Your task to perform on an android device: install app "Expedia: Hotels, Flights & Car" Image 0: 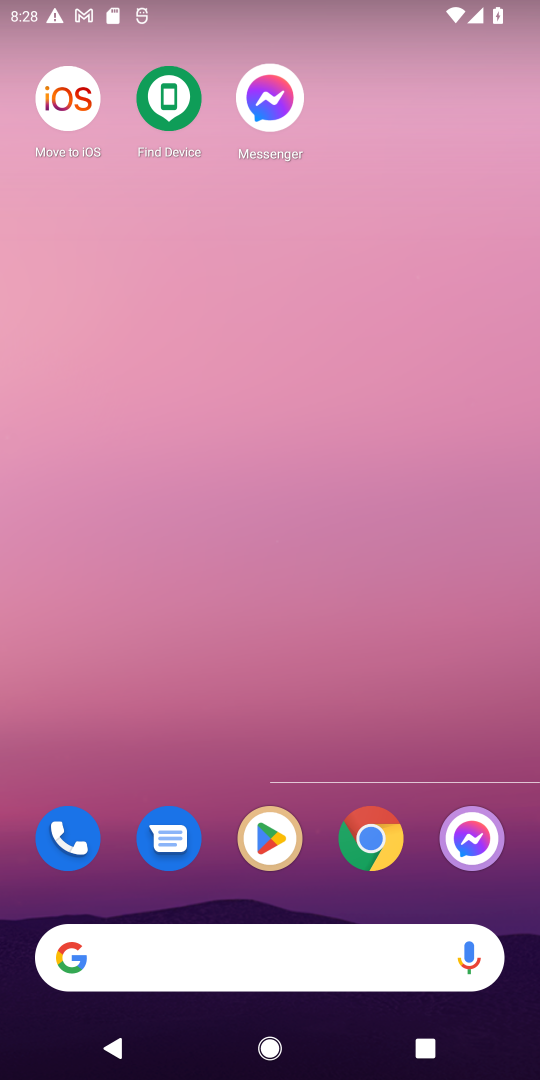
Step 0: press home button
Your task to perform on an android device: install app "Expedia: Hotels, Flights & Car" Image 1: 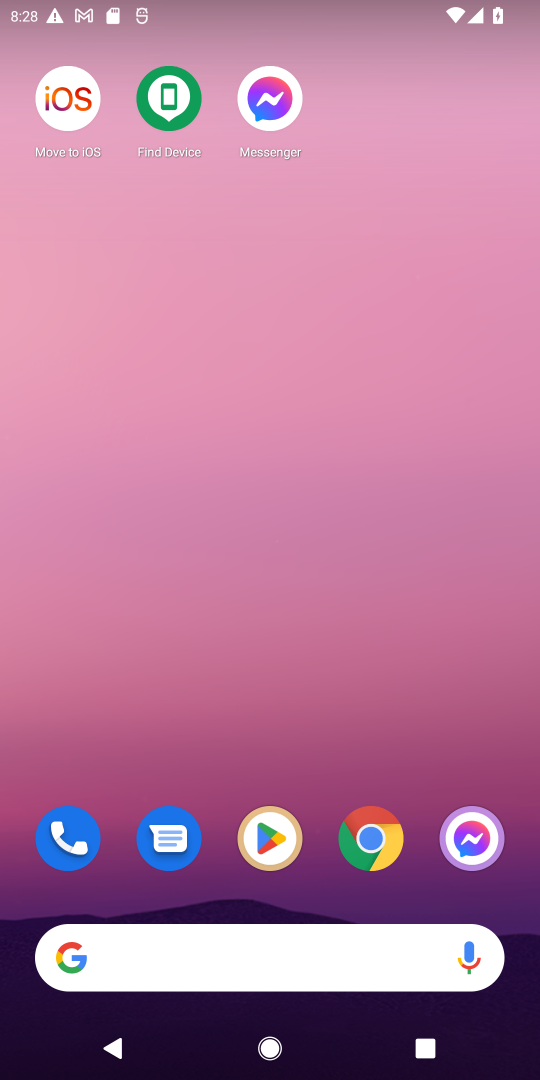
Step 1: click (262, 828)
Your task to perform on an android device: install app "Expedia: Hotels, Flights & Car" Image 2: 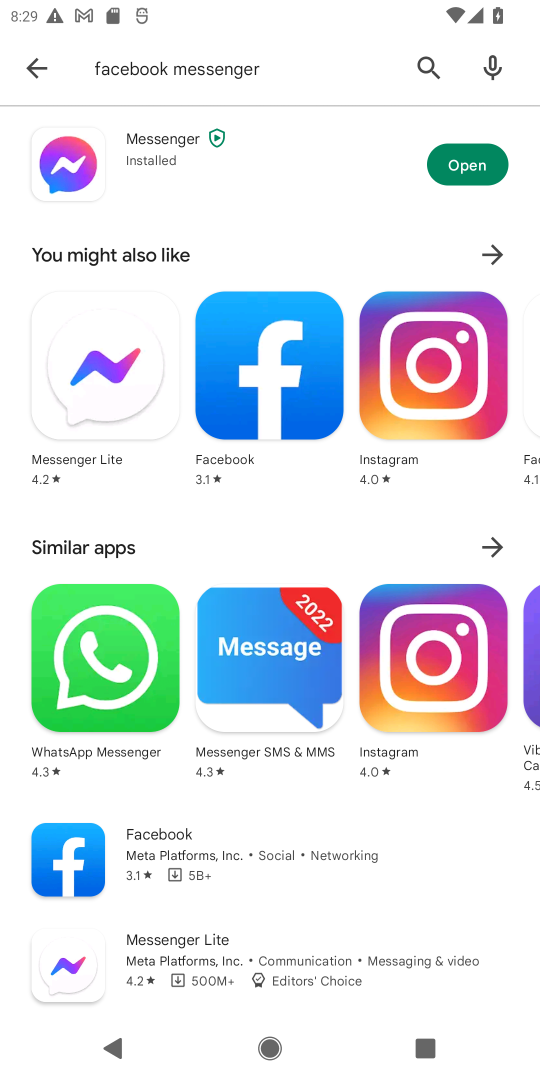
Step 2: click (430, 66)
Your task to perform on an android device: install app "Expedia: Hotels, Flights & Car" Image 3: 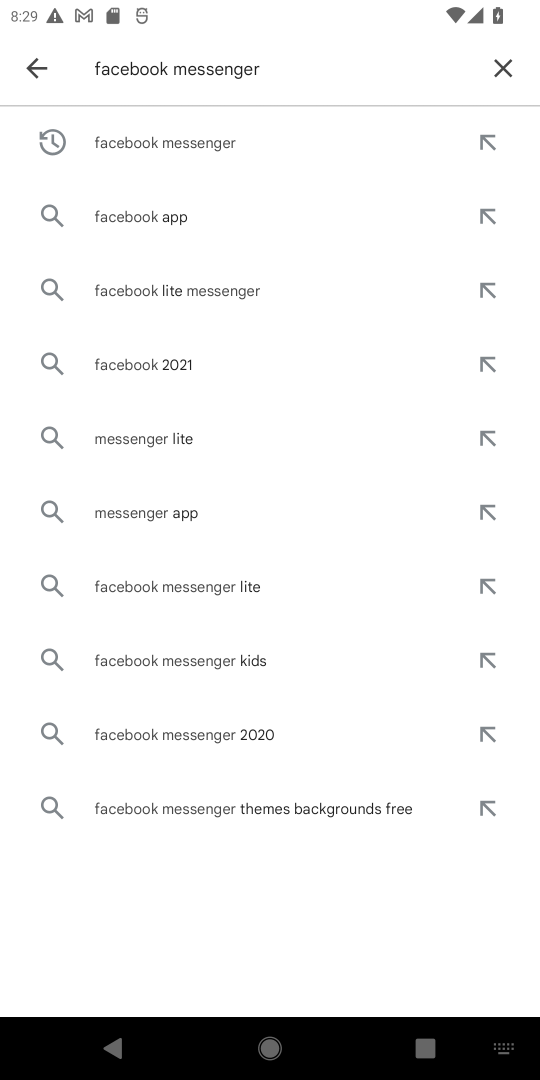
Step 3: type "Expedia: Hotels, Flights & Car"
Your task to perform on an android device: install app "Expedia: Hotels, Flights & Car" Image 4: 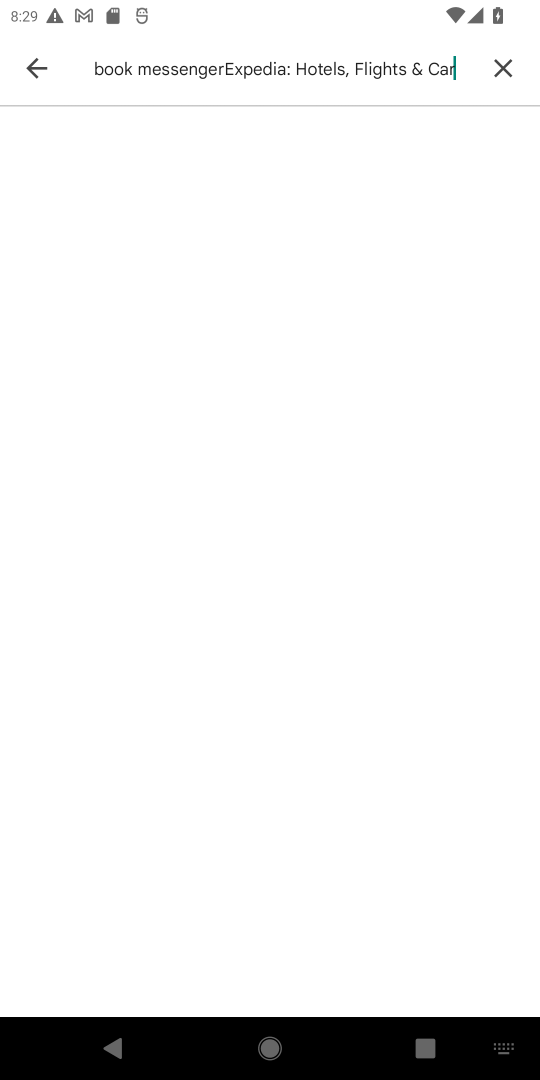
Step 4: click (492, 60)
Your task to perform on an android device: install app "Expedia: Hotels, Flights & Car" Image 5: 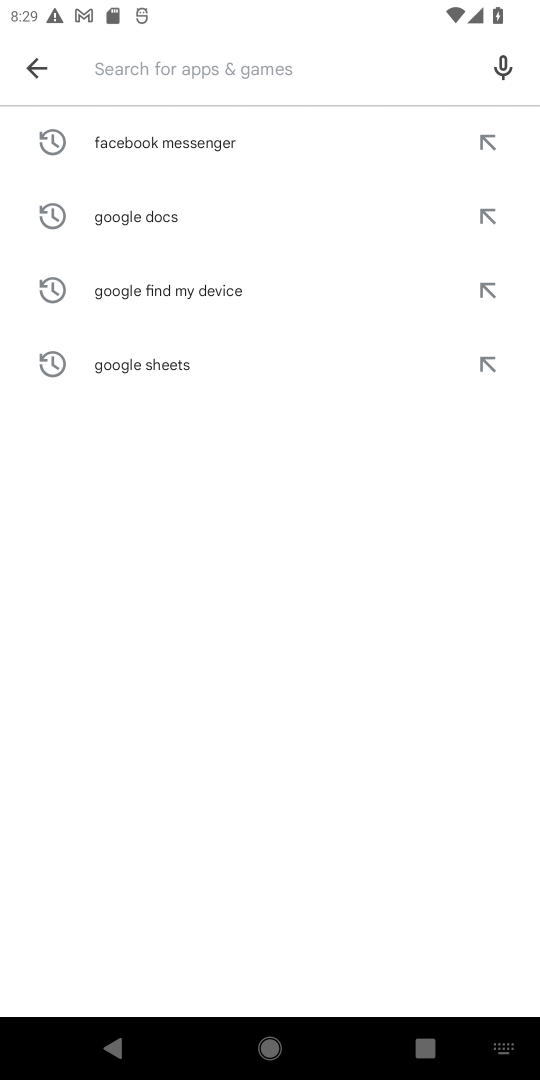
Step 5: type "Expedia: Hotels, Flights & Car"
Your task to perform on an android device: install app "Expedia: Hotels, Flights & Car" Image 6: 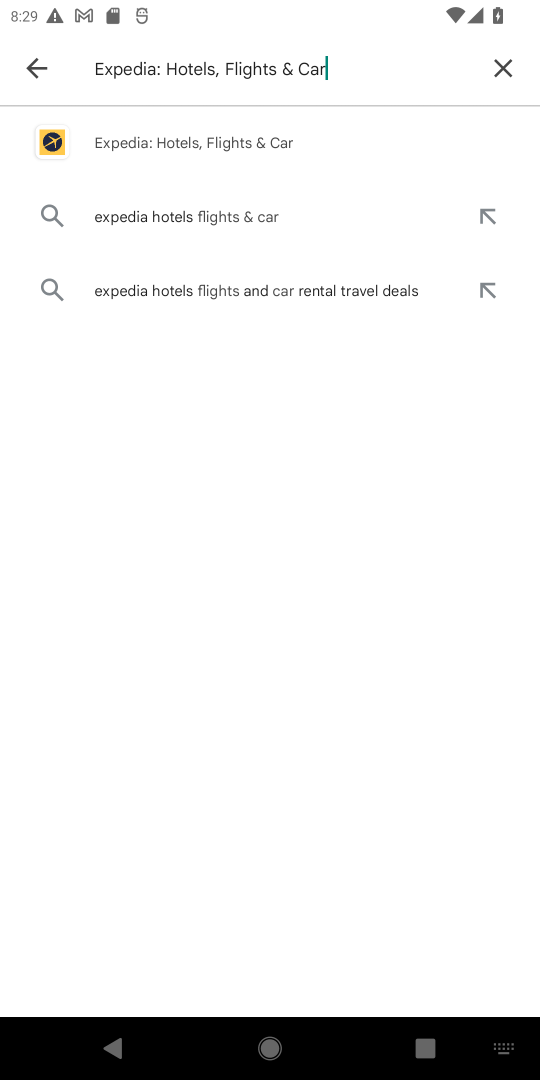
Step 6: click (238, 135)
Your task to perform on an android device: install app "Expedia: Hotels, Flights & Car" Image 7: 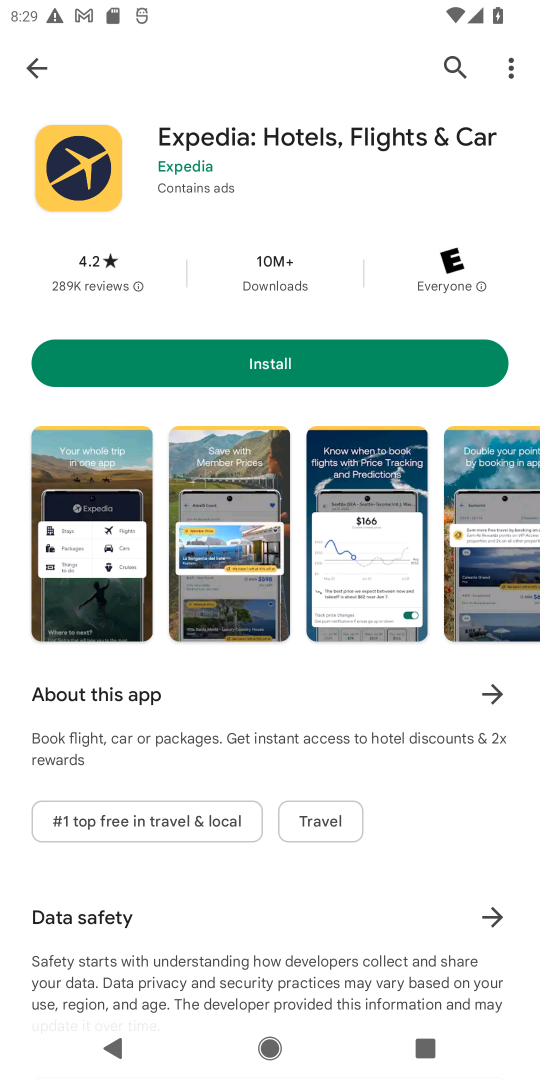
Step 7: click (264, 359)
Your task to perform on an android device: install app "Expedia: Hotels, Flights & Car" Image 8: 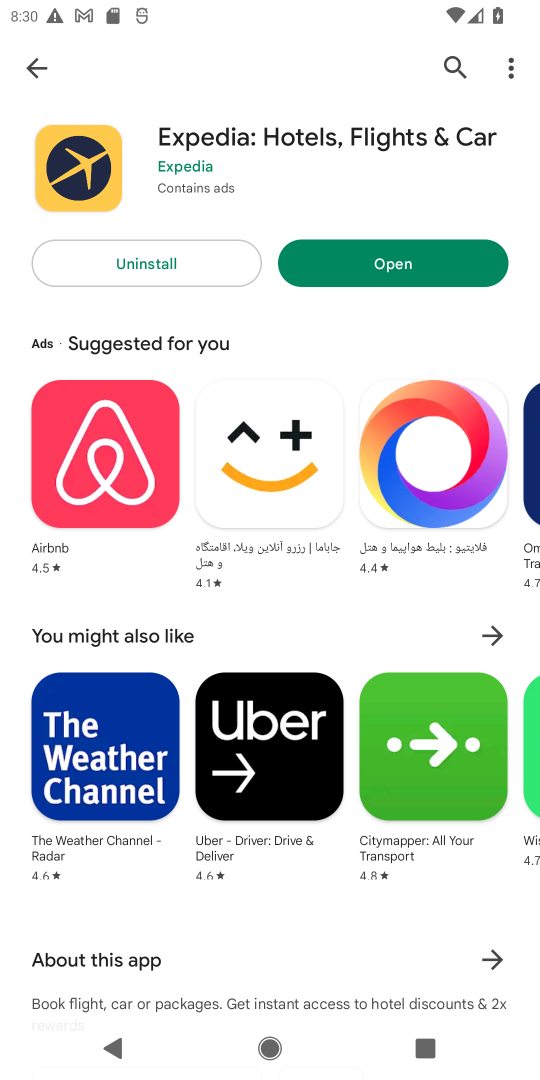
Step 8: click (349, 260)
Your task to perform on an android device: install app "Expedia: Hotels, Flights & Car" Image 9: 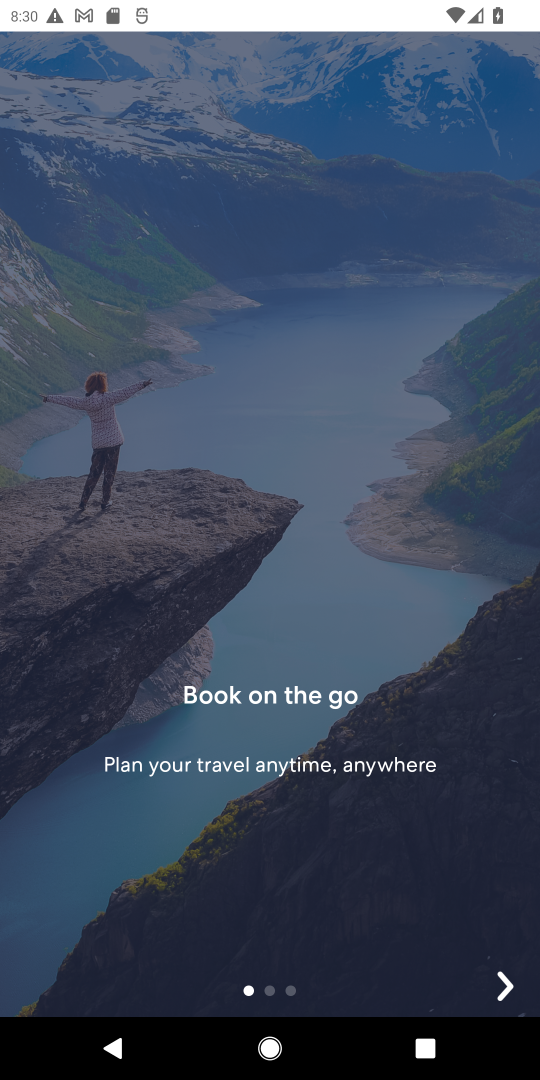
Step 9: click (504, 980)
Your task to perform on an android device: install app "Expedia: Hotels, Flights & Car" Image 10: 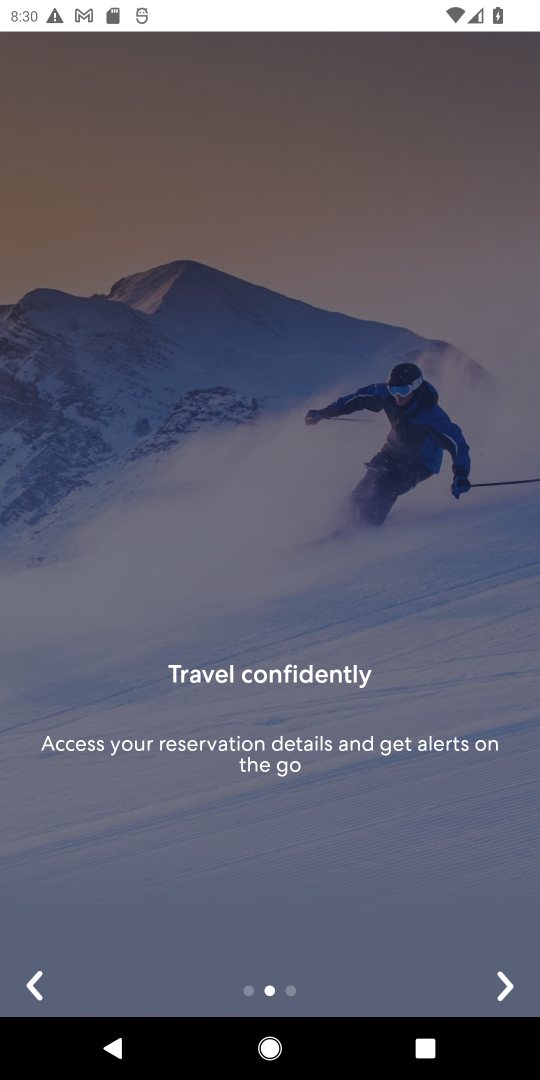
Step 10: click (502, 1000)
Your task to perform on an android device: install app "Expedia: Hotels, Flights & Car" Image 11: 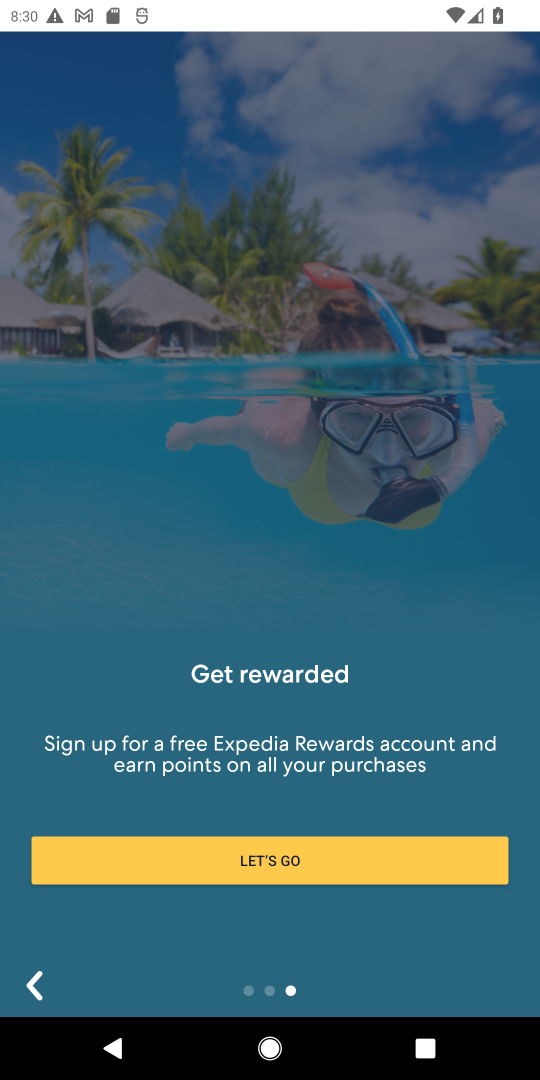
Step 11: click (272, 852)
Your task to perform on an android device: install app "Expedia: Hotels, Flights & Car" Image 12: 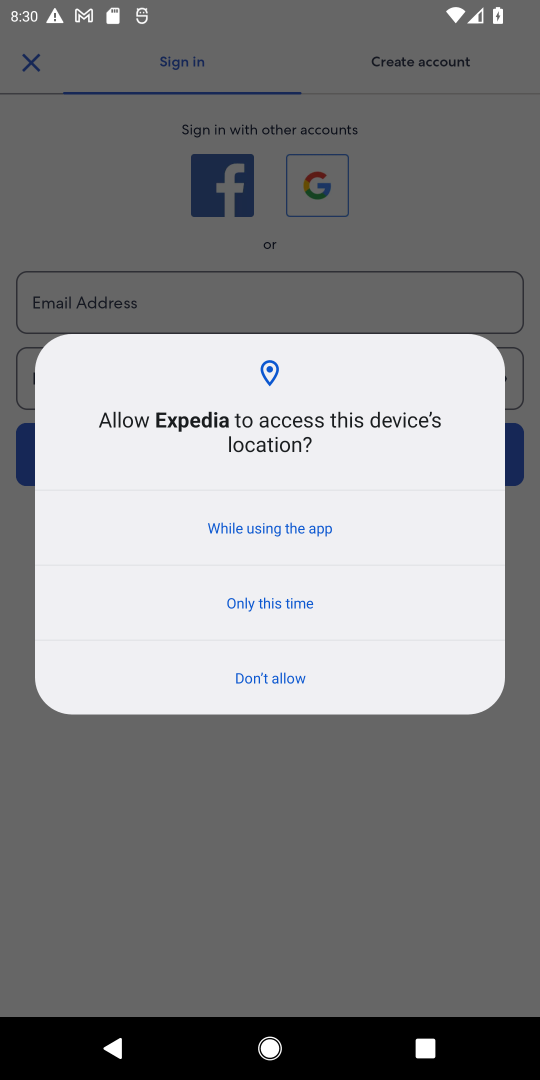
Step 12: click (340, 519)
Your task to perform on an android device: install app "Expedia: Hotels, Flights & Car" Image 13: 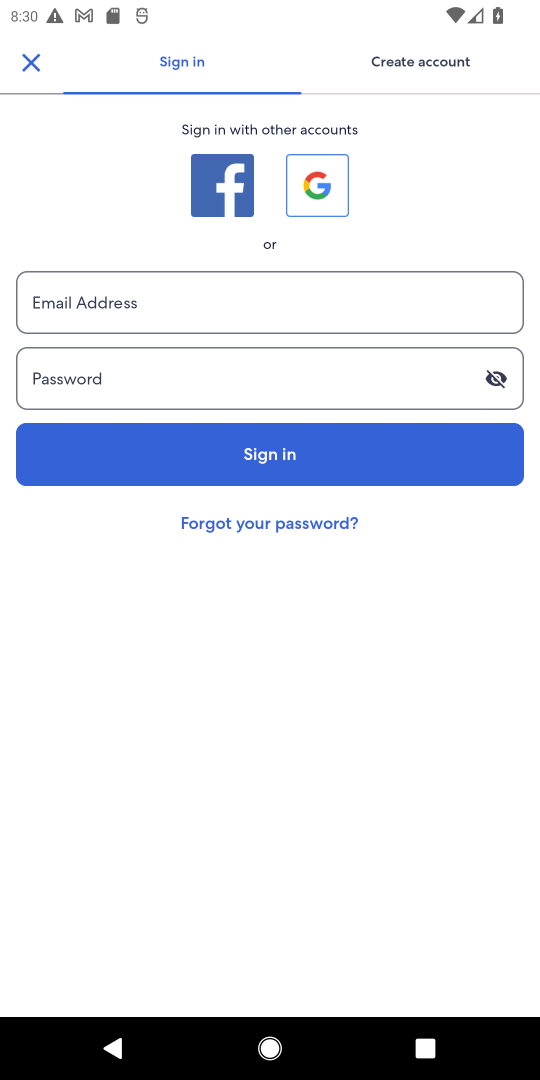
Step 13: click (23, 57)
Your task to perform on an android device: install app "Expedia: Hotels, Flights & Car" Image 14: 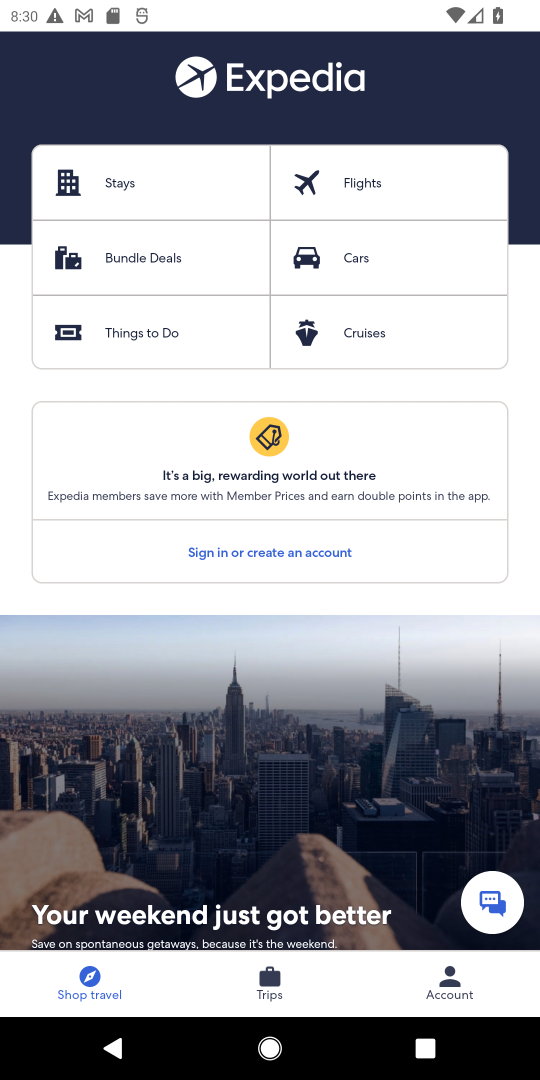
Step 14: task complete